Your task to perform on an android device: change the clock display to show seconds Image 0: 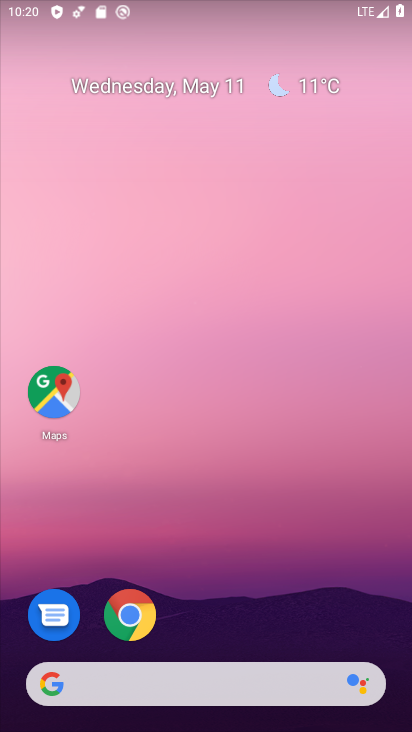
Step 0: drag from (233, 568) to (169, 5)
Your task to perform on an android device: change the clock display to show seconds Image 1: 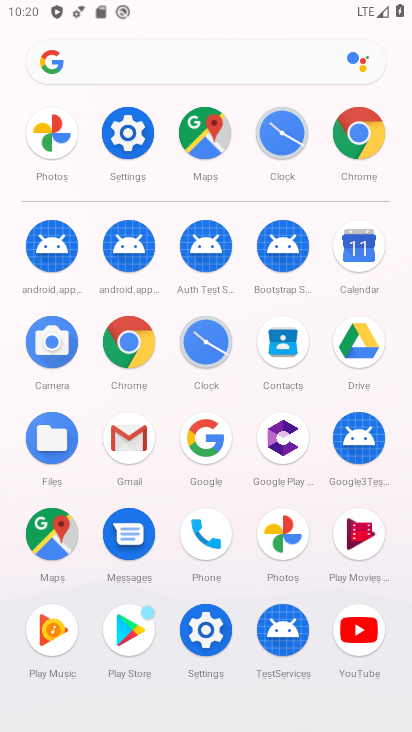
Step 1: click (214, 341)
Your task to perform on an android device: change the clock display to show seconds Image 2: 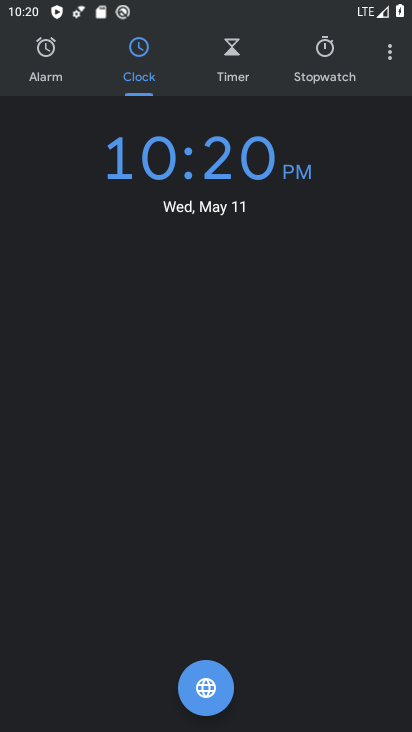
Step 2: click (384, 45)
Your task to perform on an android device: change the clock display to show seconds Image 3: 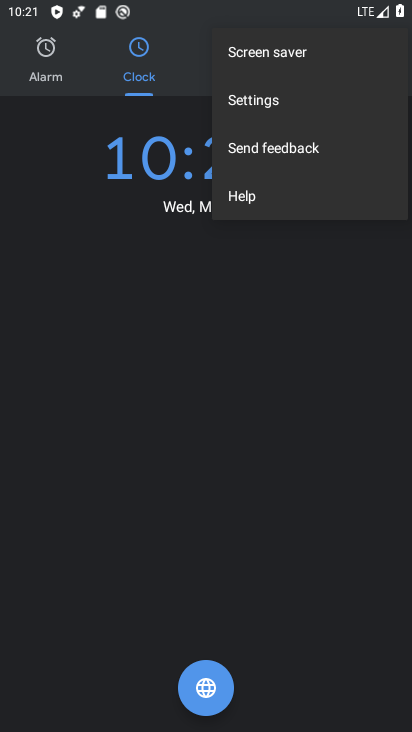
Step 3: click (266, 108)
Your task to perform on an android device: change the clock display to show seconds Image 4: 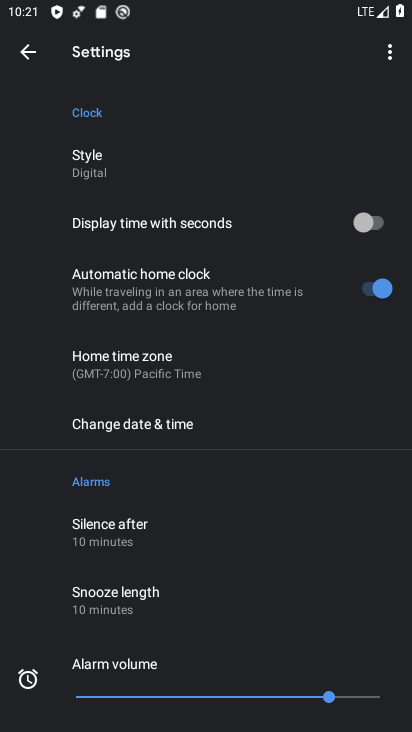
Step 4: click (251, 232)
Your task to perform on an android device: change the clock display to show seconds Image 5: 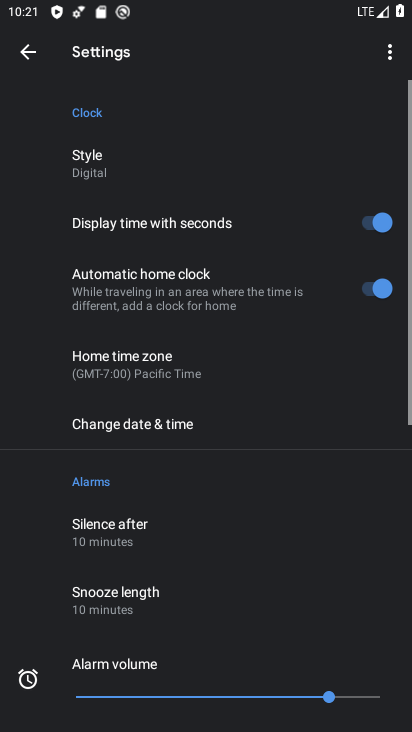
Step 5: task complete